Your task to perform on an android device: turn off location Image 0: 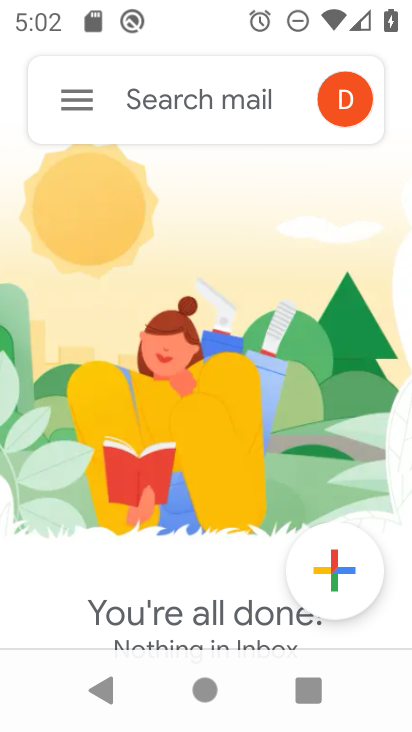
Step 0: press home button
Your task to perform on an android device: turn off location Image 1: 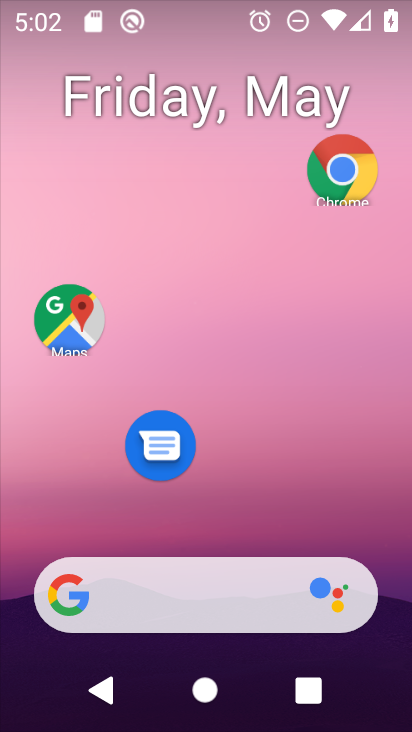
Step 1: drag from (215, 519) to (234, 0)
Your task to perform on an android device: turn off location Image 2: 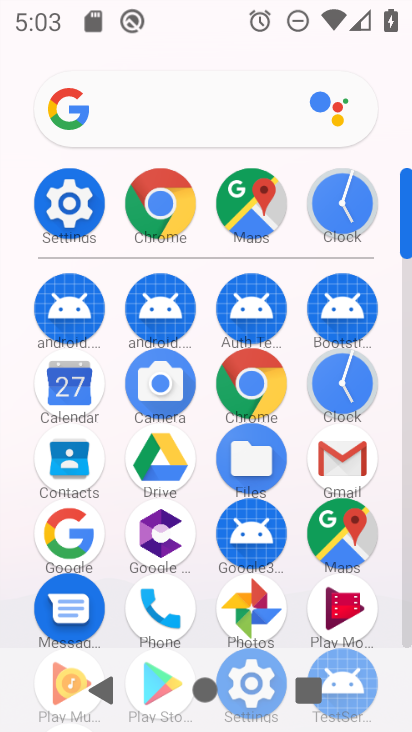
Step 2: click (73, 200)
Your task to perform on an android device: turn off location Image 3: 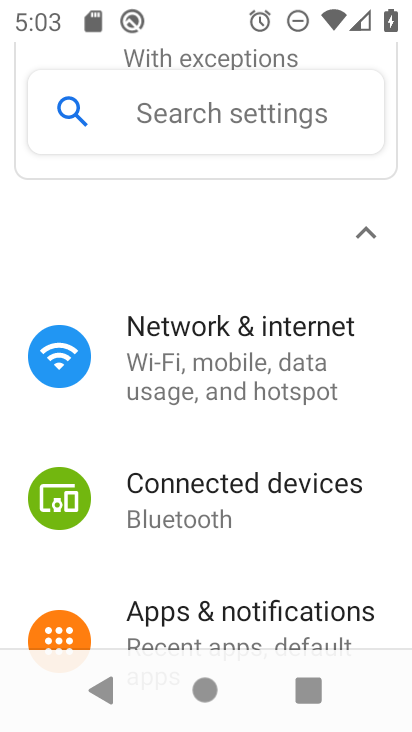
Step 3: drag from (203, 588) to (266, 131)
Your task to perform on an android device: turn off location Image 4: 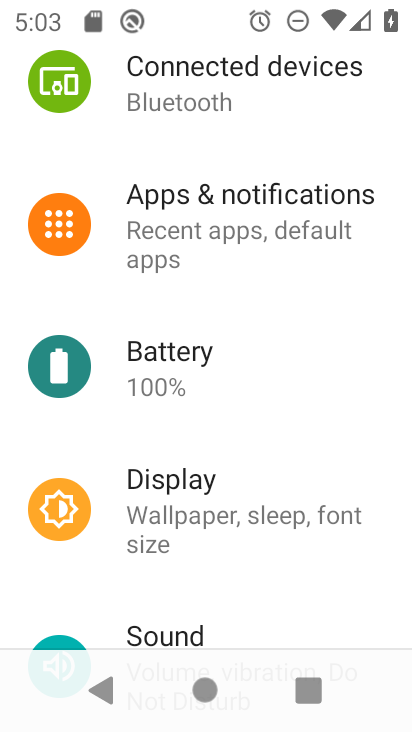
Step 4: drag from (266, 579) to (302, 158)
Your task to perform on an android device: turn off location Image 5: 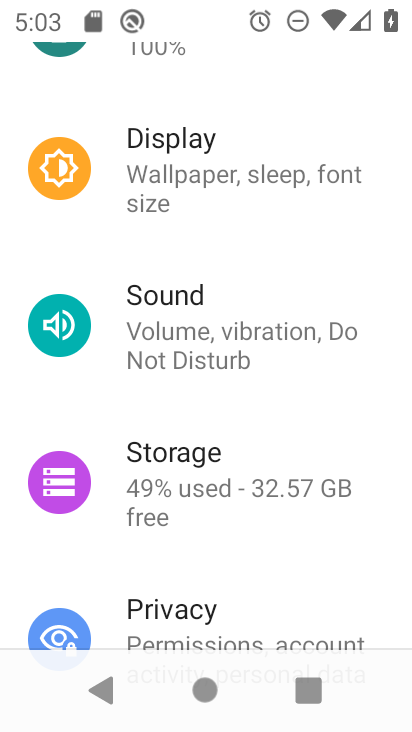
Step 5: drag from (221, 575) to (291, 209)
Your task to perform on an android device: turn off location Image 6: 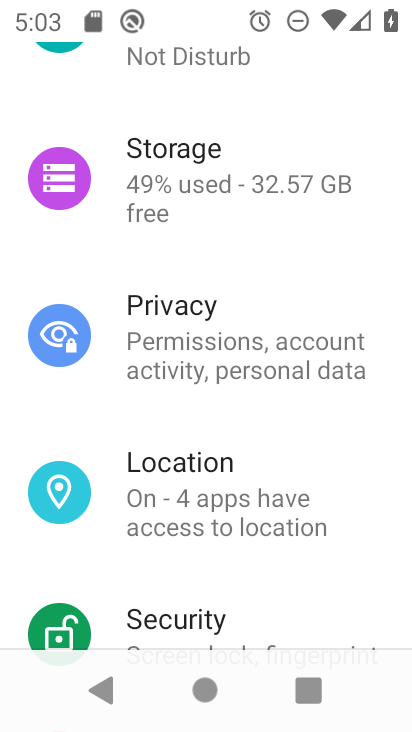
Step 6: click (178, 507)
Your task to perform on an android device: turn off location Image 7: 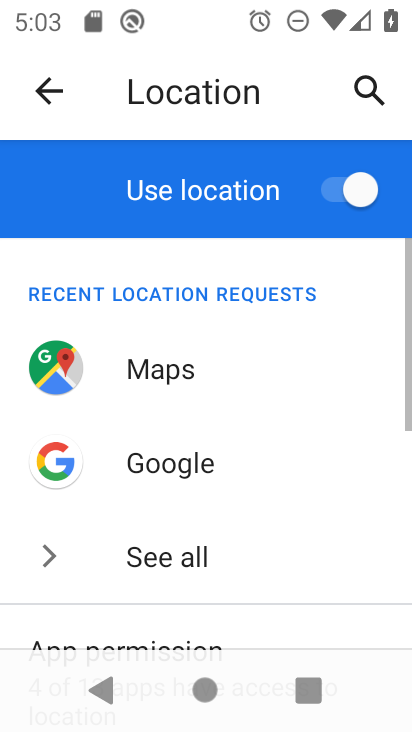
Step 7: click (331, 197)
Your task to perform on an android device: turn off location Image 8: 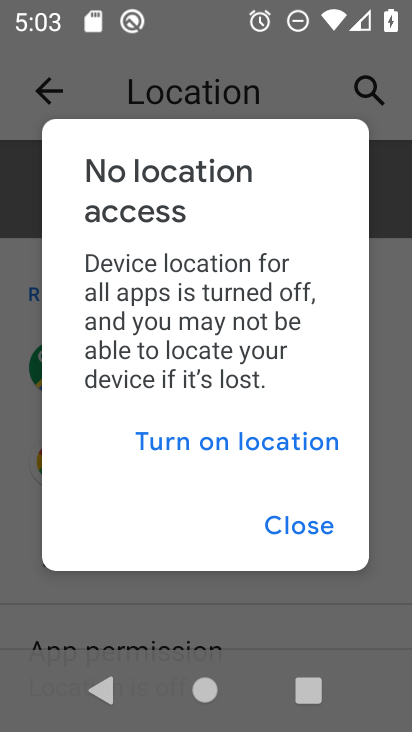
Step 8: task complete